Your task to perform on an android device: Check out the new nike air max 2020. Image 0: 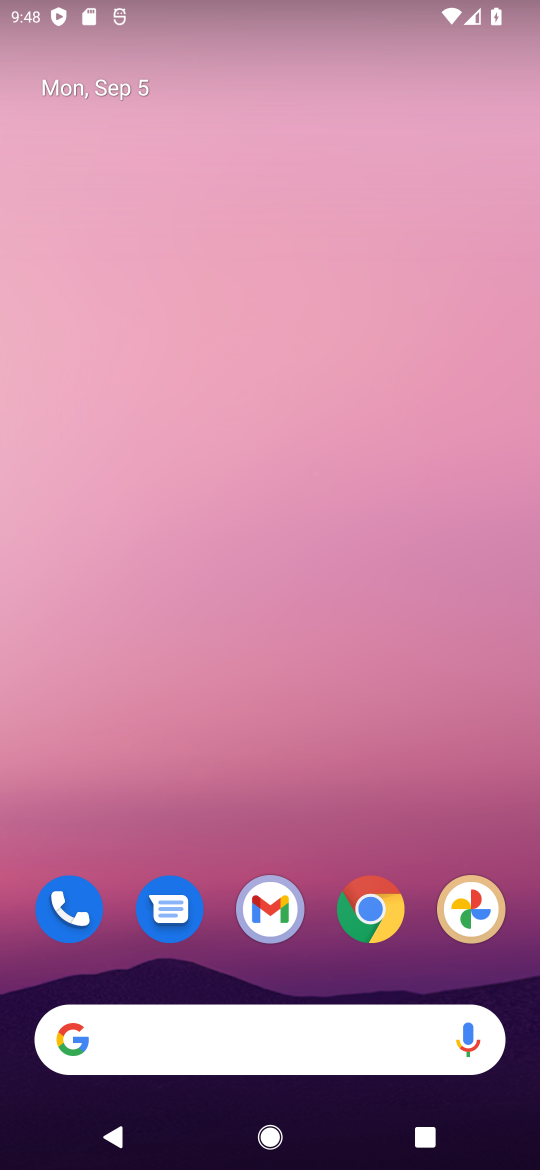
Step 0: click (381, 885)
Your task to perform on an android device: Check out the new nike air max 2020. Image 1: 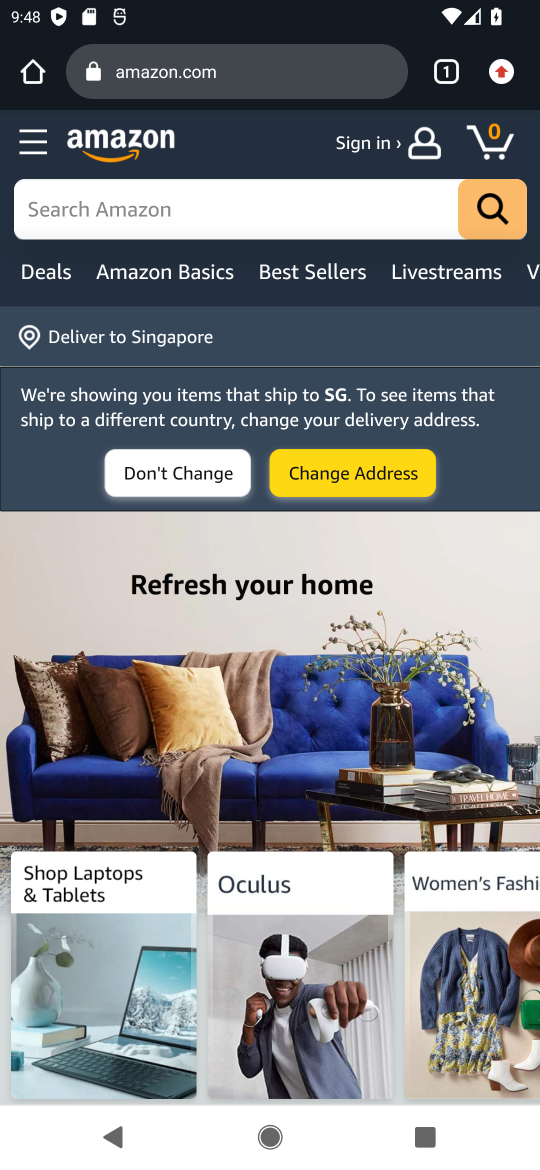
Step 1: click (338, 485)
Your task to perform on an android device: Check out the new nike air max 2020. Image 2: 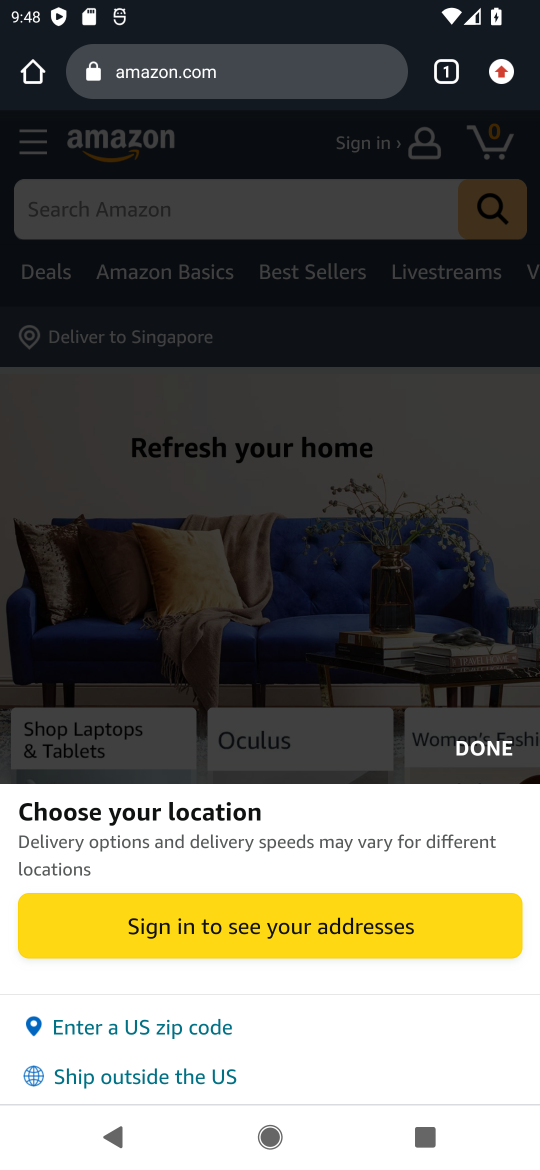
Step 2: task complete